Your task to perform on an android device: Open Youtube and go to "Your channel" Image 0: 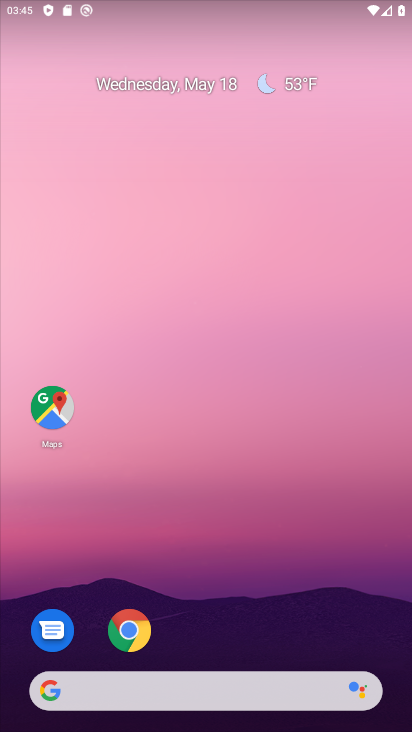
Step 0: drag from (201, 729) to (256, 204)
Your task to perform on an android device: Open Youtube and go to "Your channel" Image 1: 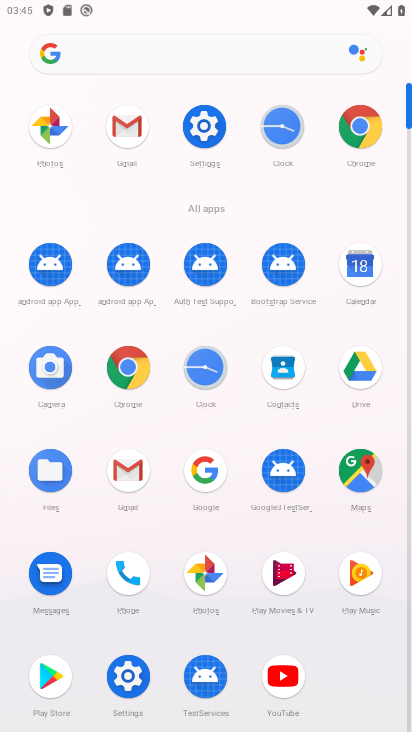
Step 1: click (286, 673)
Your task to perform on an android device: Open Youtube and go to "Your channel" Image 2: 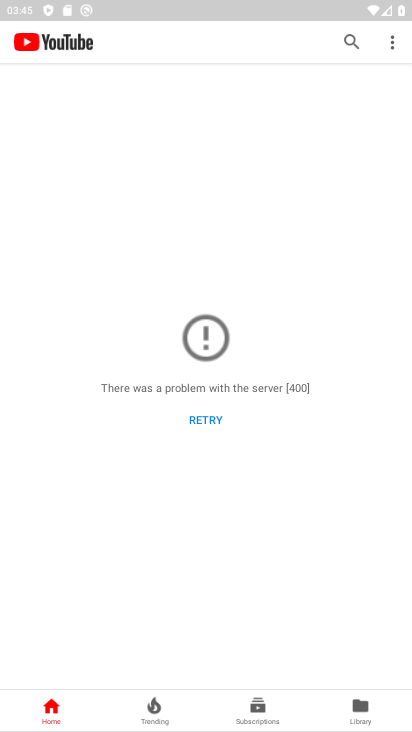
Step 2: click (359, 706)
Your task to perform on an android device: Open Youtube and go to "Your channel" Image 3: 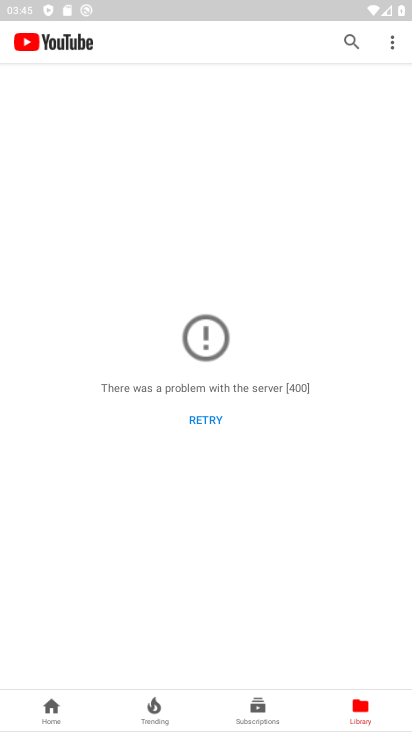
Step 3: task complete